Your task to perform on an android device: open chrome and create a bookmark for the current page Image 0: 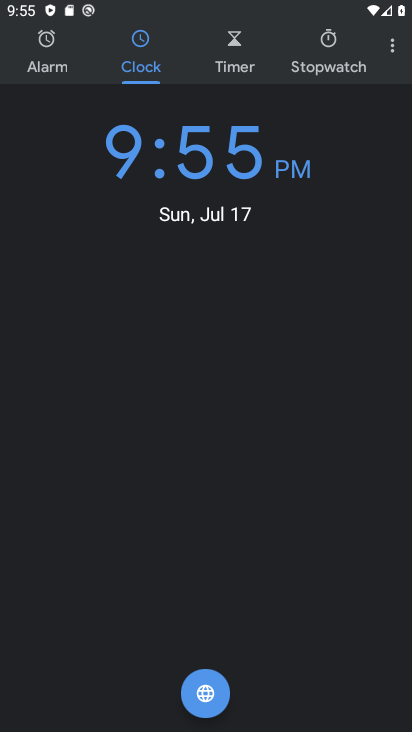
Step 0: press home button
Your task to perform on an android device: open chrome and create a bookmark for the current page Image 1: 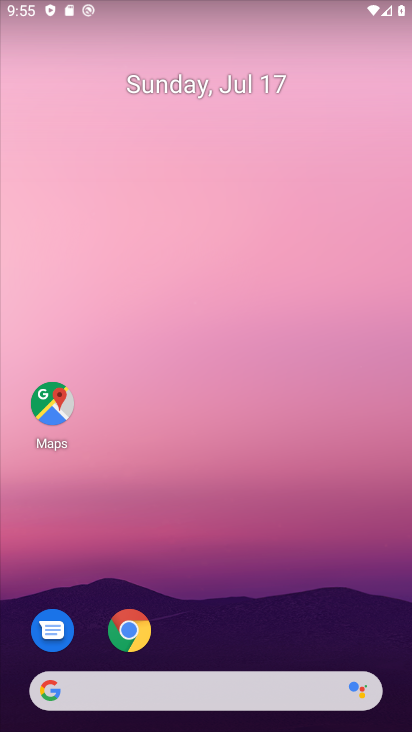
Step 1: drag from (317, 630) to (389, 93)
Your task to perform on an android device: open chrome and create a bookmark for the current page Image 2: 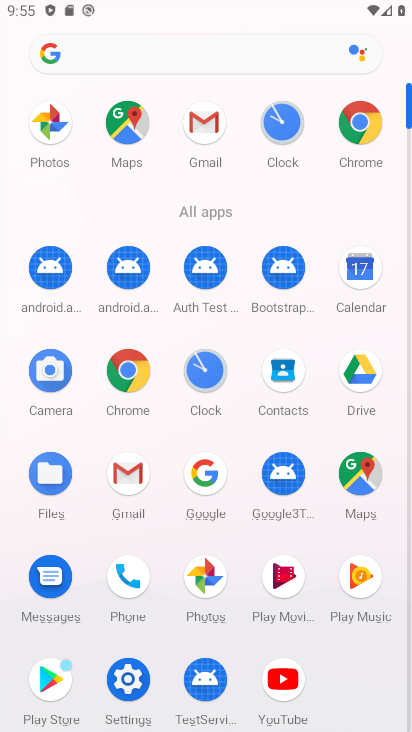
Step 2: click (364, 135)
Your task to perform on an android device: open chrome and create a bookmark for the current page Image 3: 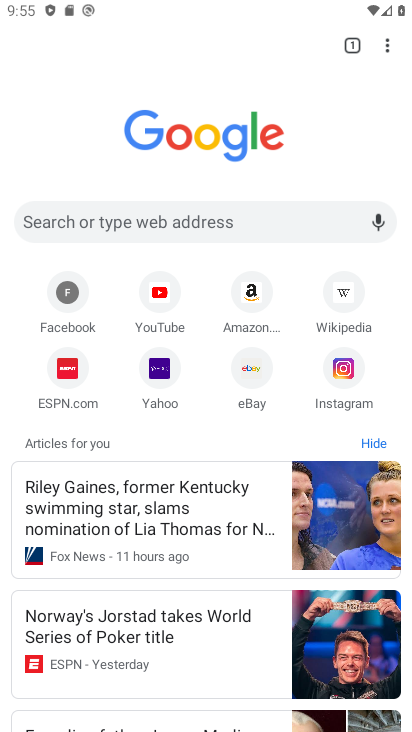
Step 3: click (388, 49)
Your task to perform on an android device: open chrome and create a bookmark for the current page Image 4: 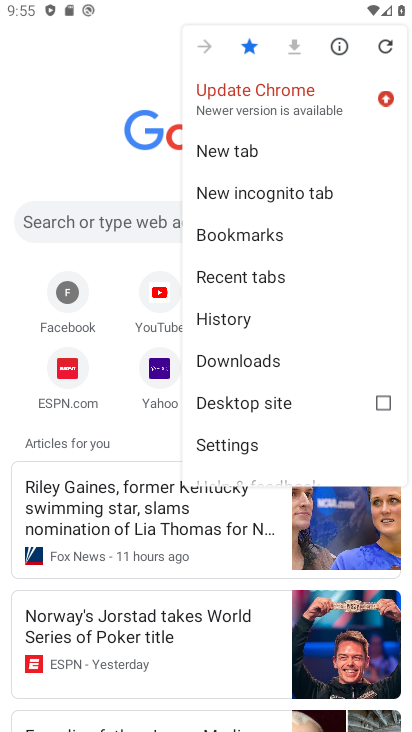
Step 4: task complete